Your task to perform on an android device: open app "Expedia: Hotels, Flights & Car" (install if not already installed), go to login, and select forgot password Image 0: 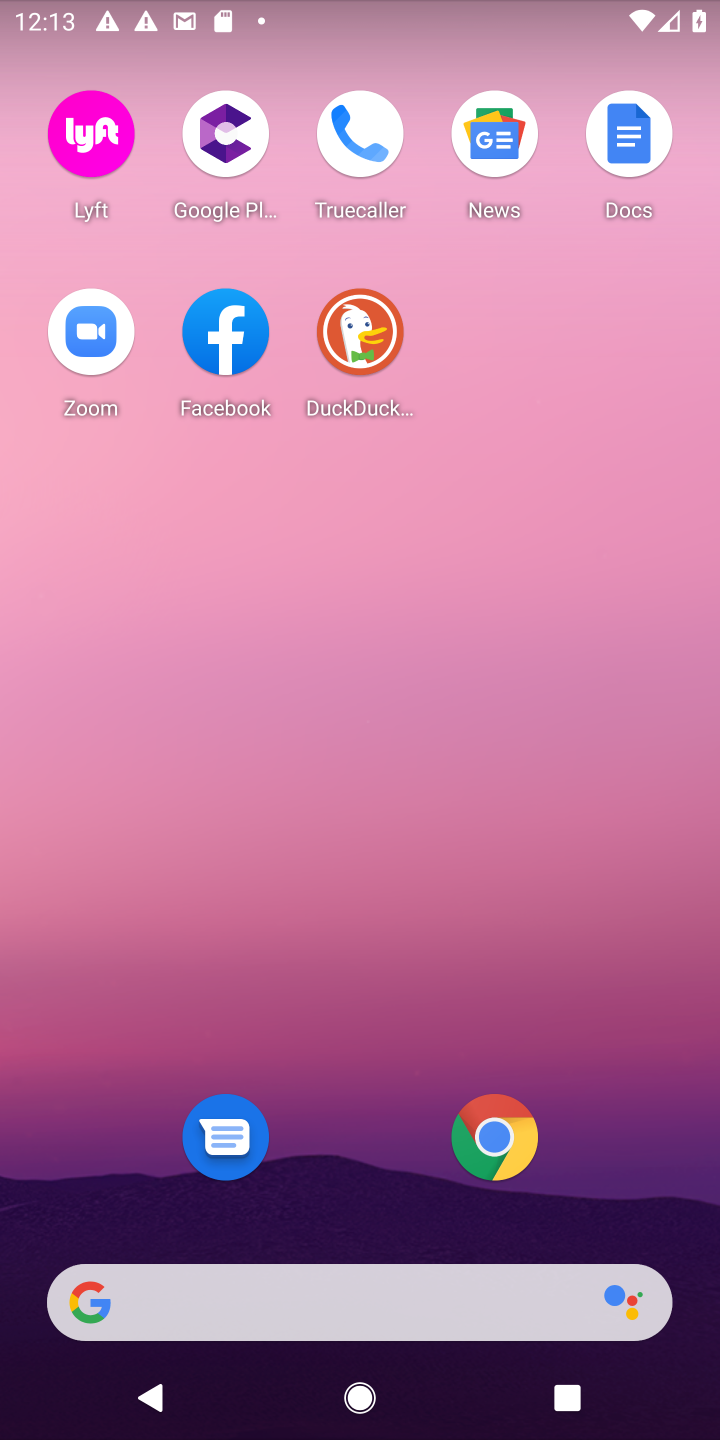
Step 0: drag from (370, 1189) to (174, 280)
Your task to perform on an android device: open app "Expedia: Hotels, Flights & Car" (install if not already installed), go to login, and select forgot password Image 1: 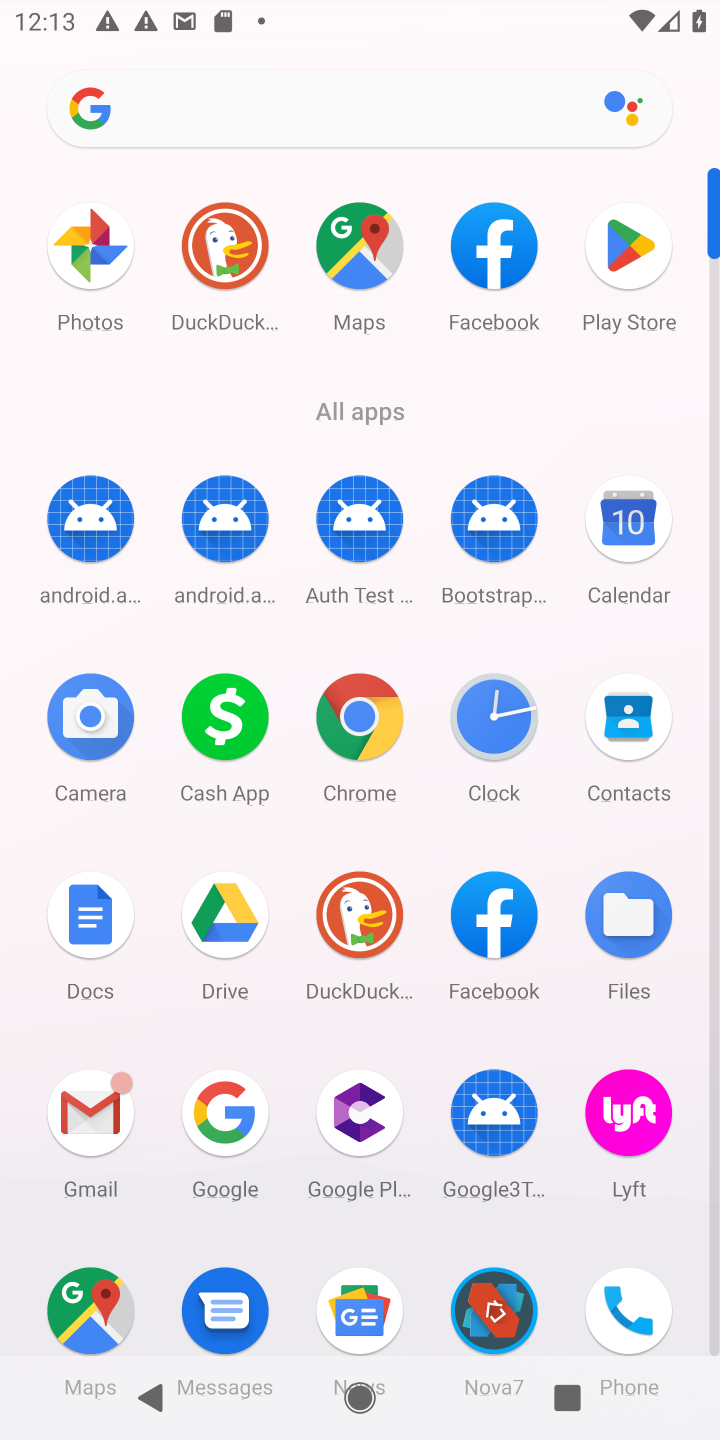
Step 1: click (624, 246)
Your task to perform on an android device: open app "Expedia: Hotels, Flights & Car" (install if not already installed), go to login, and select forgot password Image 2: 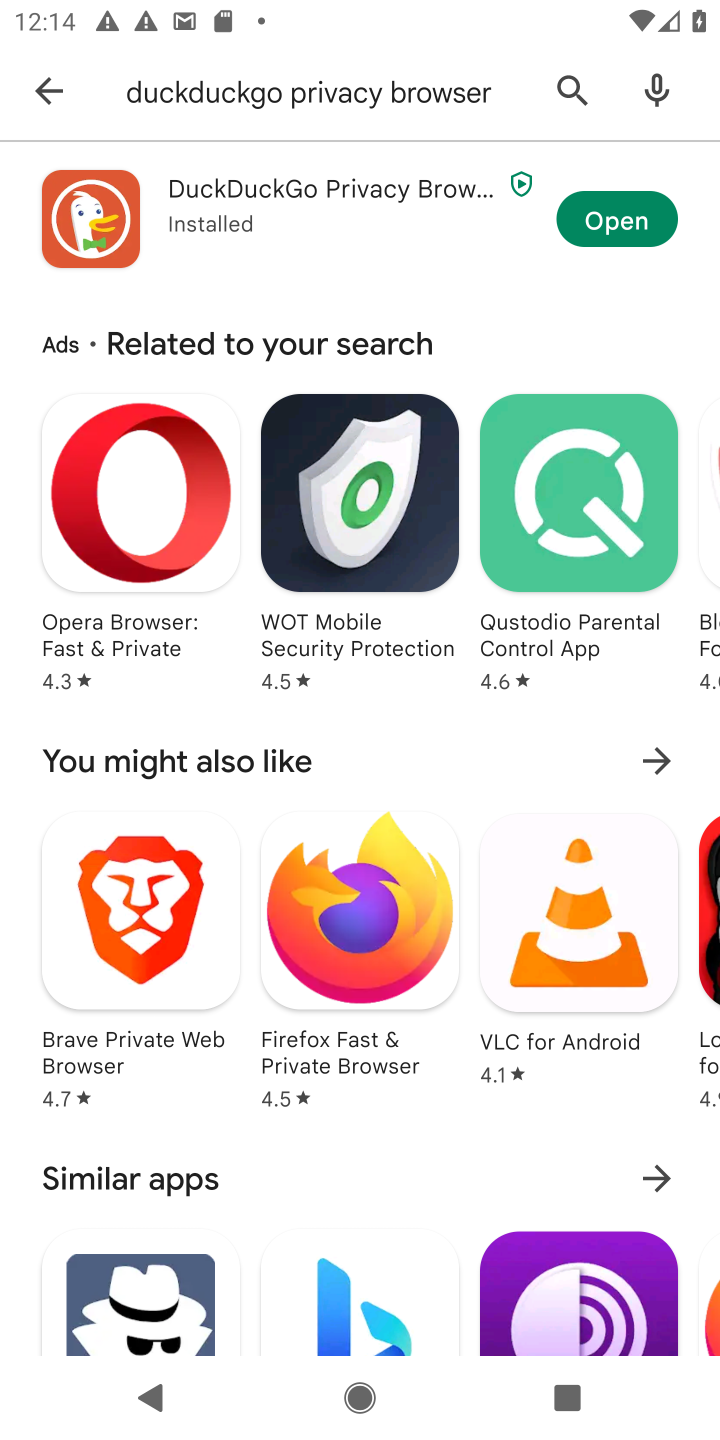
Step 2: click (563, 93)
Your task to perform on an android device: open app "Expedia: Hotels, Flights & Car" (install if not already installed), go to login, and select forgot password Image 3: 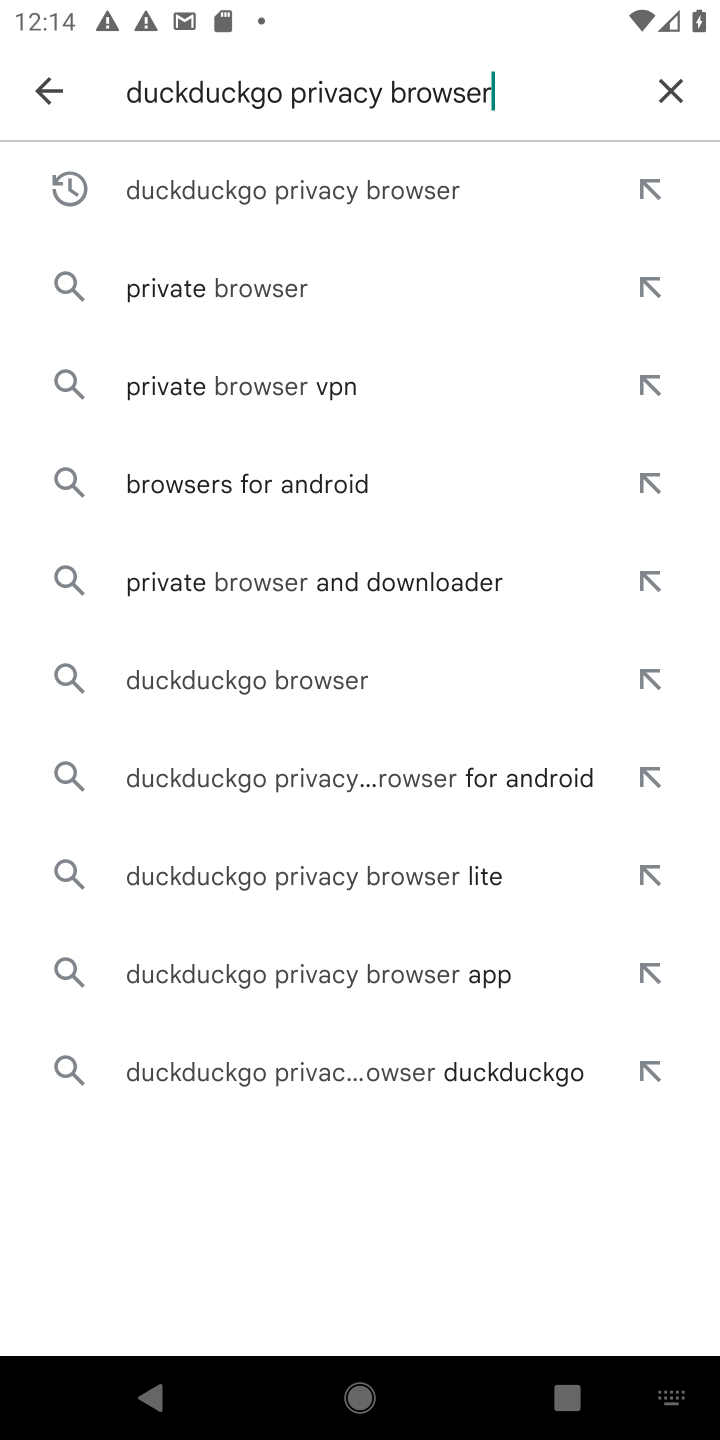
Step 3: click (673, 89)
Your task to perform on an android device: open app "Expedia: Hotels, Flights & Car" (install if not already installed), go to login, and select forgot password Image 4: 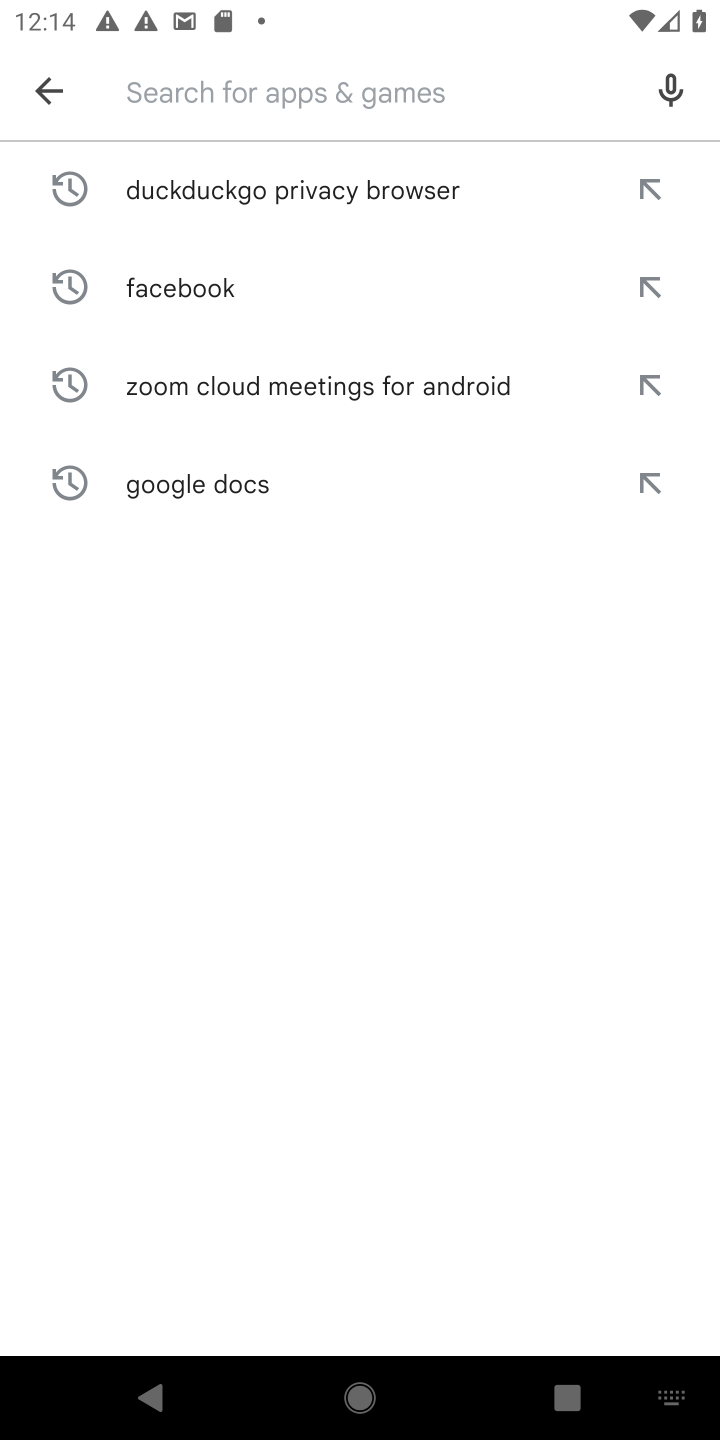
Step 4: type "Expedia: Hotels, Flights & Car"
Your task to perform on an android device: open app "Expedia: Hotels, Flights & Car" (install if not already installed), go to login, and select forgot password Image 5: 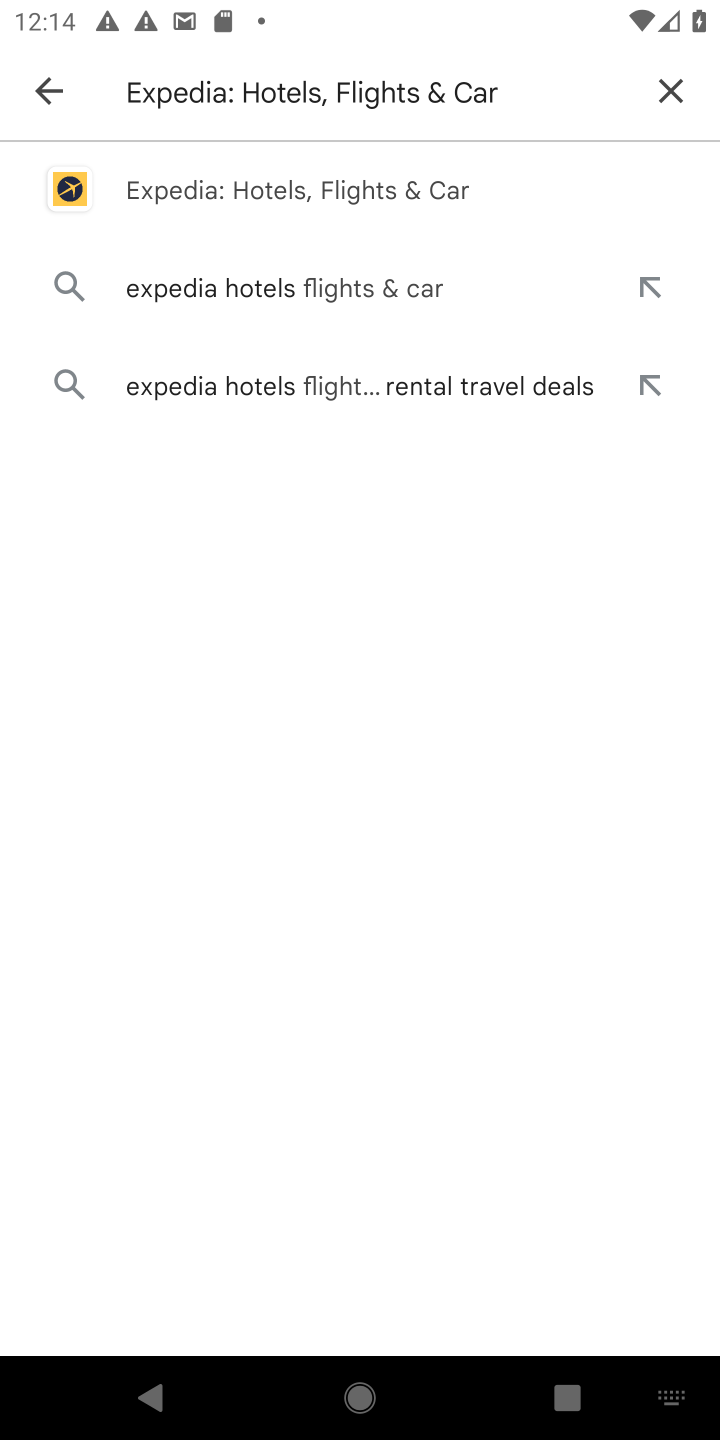
Step 5: click (335, 194)
Your task to perform on an android device: open app "Expedia: Hotels, Flights & Car" (install if not already installed), go to login, and select forgot password Image 6: 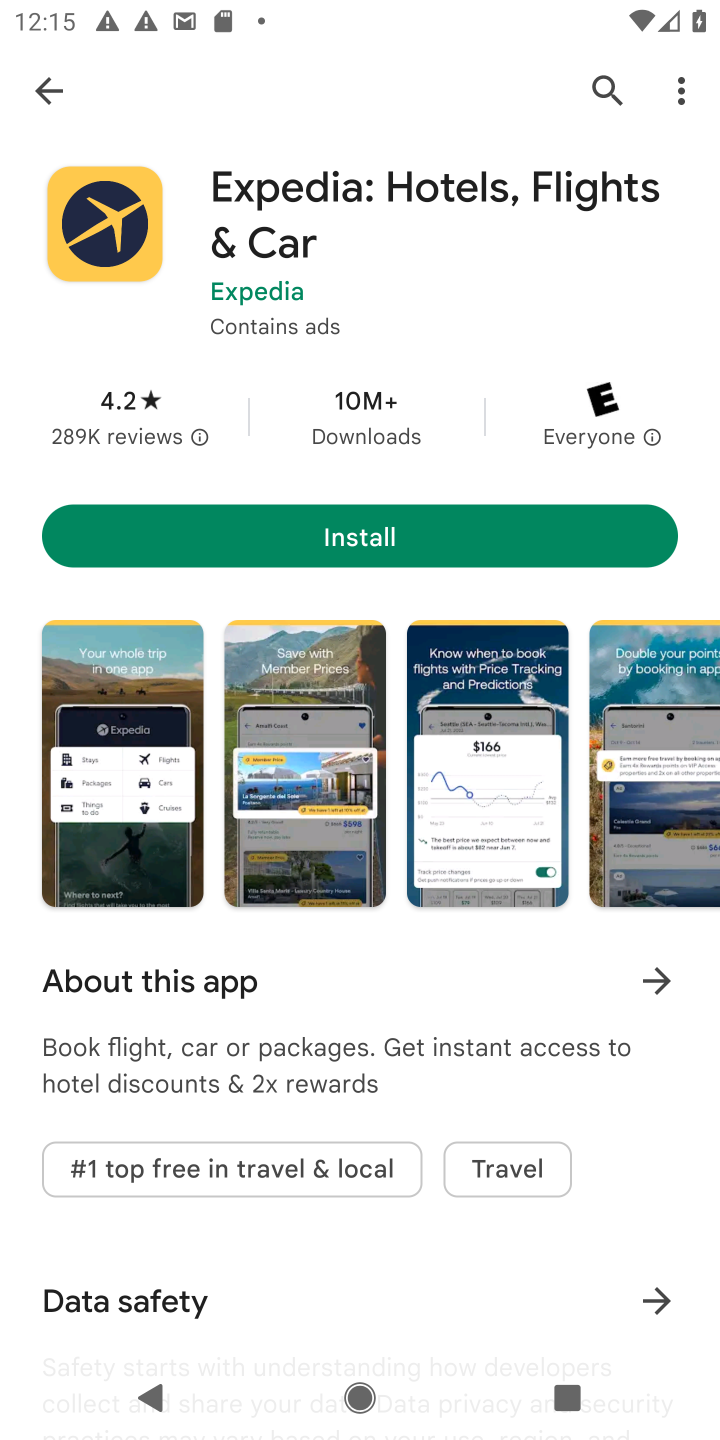
Step 6: click (316, 546)
Your task to perform on an android device: open app "Expedia: Hotels, Flights & Car" (install if not already installed), go to login, and select forgot password Image 7: 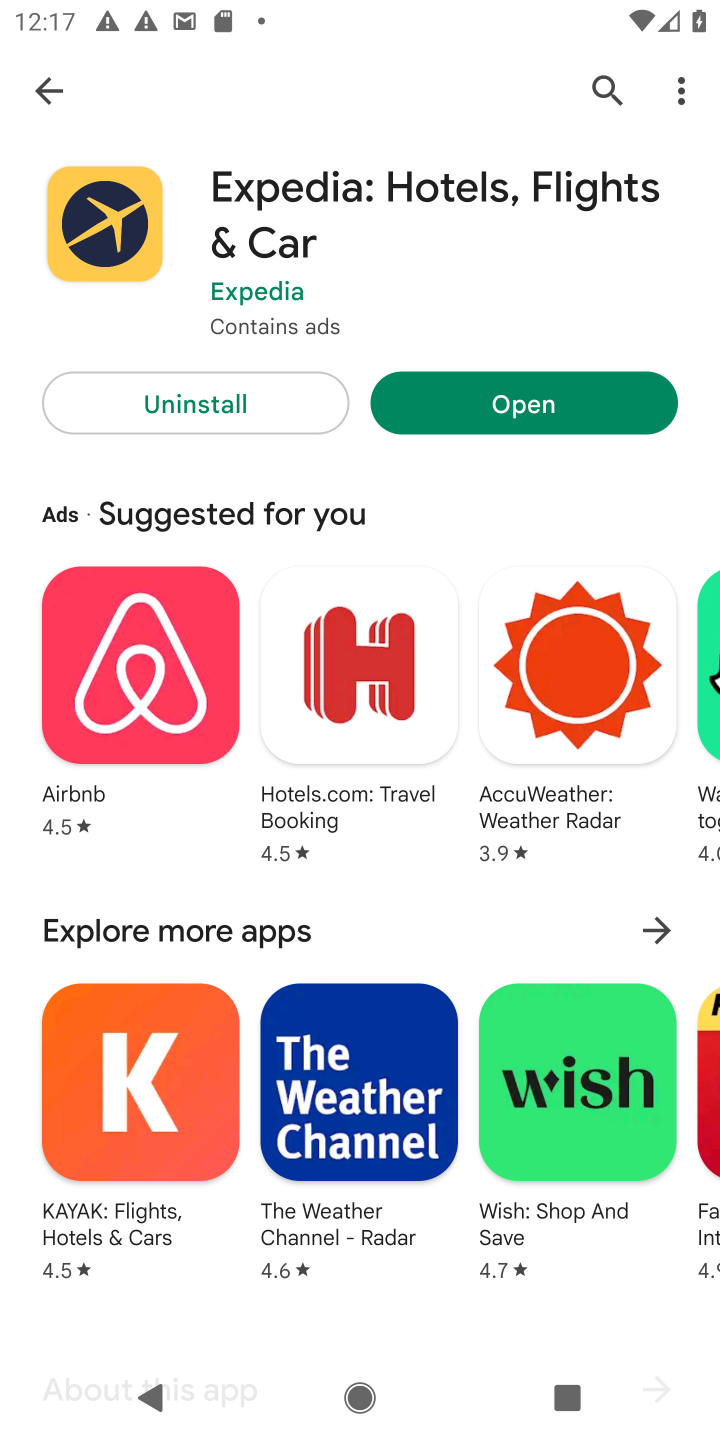
Step 7: click (502, 406)
Your task to perform on an android device: open app "Expedia: Hotels, Flights & Car" (install if not already installed), go to login, and select forgot password Image 8: 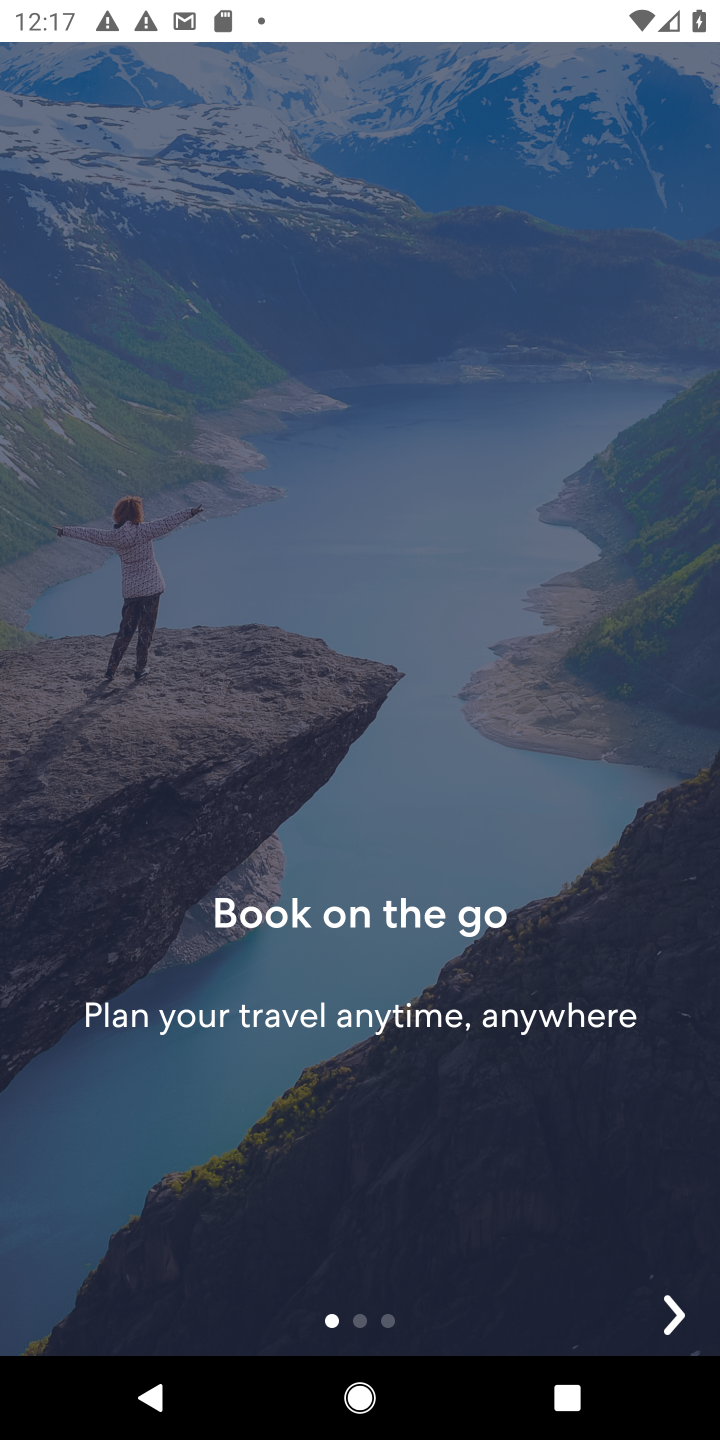
Step 8: click (673, 1318)
Your task to perform on an android device: open app "Expedia: Hotels, Flights & Car" (install if not already installed), go to login, and select forgot password Image 9: 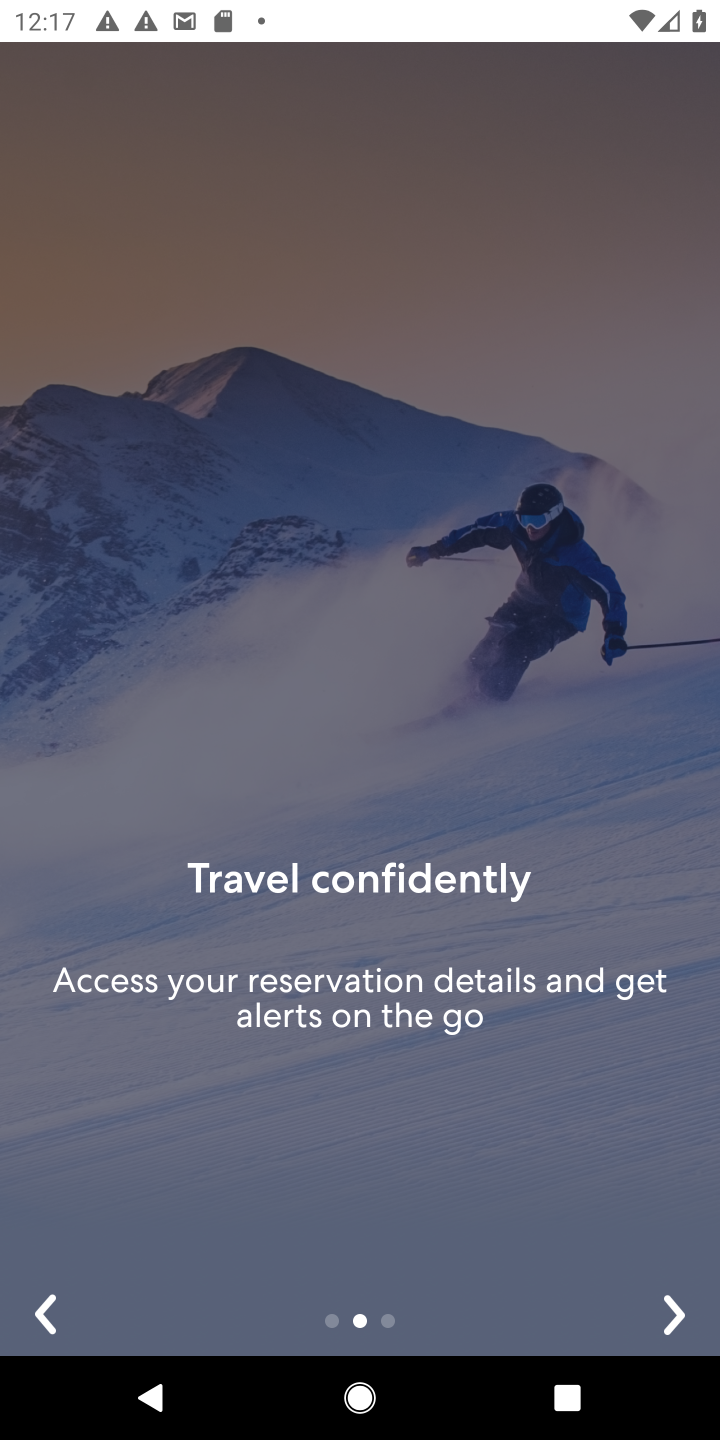
Step 9: click (673, 1318)
Your task to perform on an android device: open app "Expedia: Hotels, Flights & Car" (install if not already installed), go to login, and select forgot password Image 10: 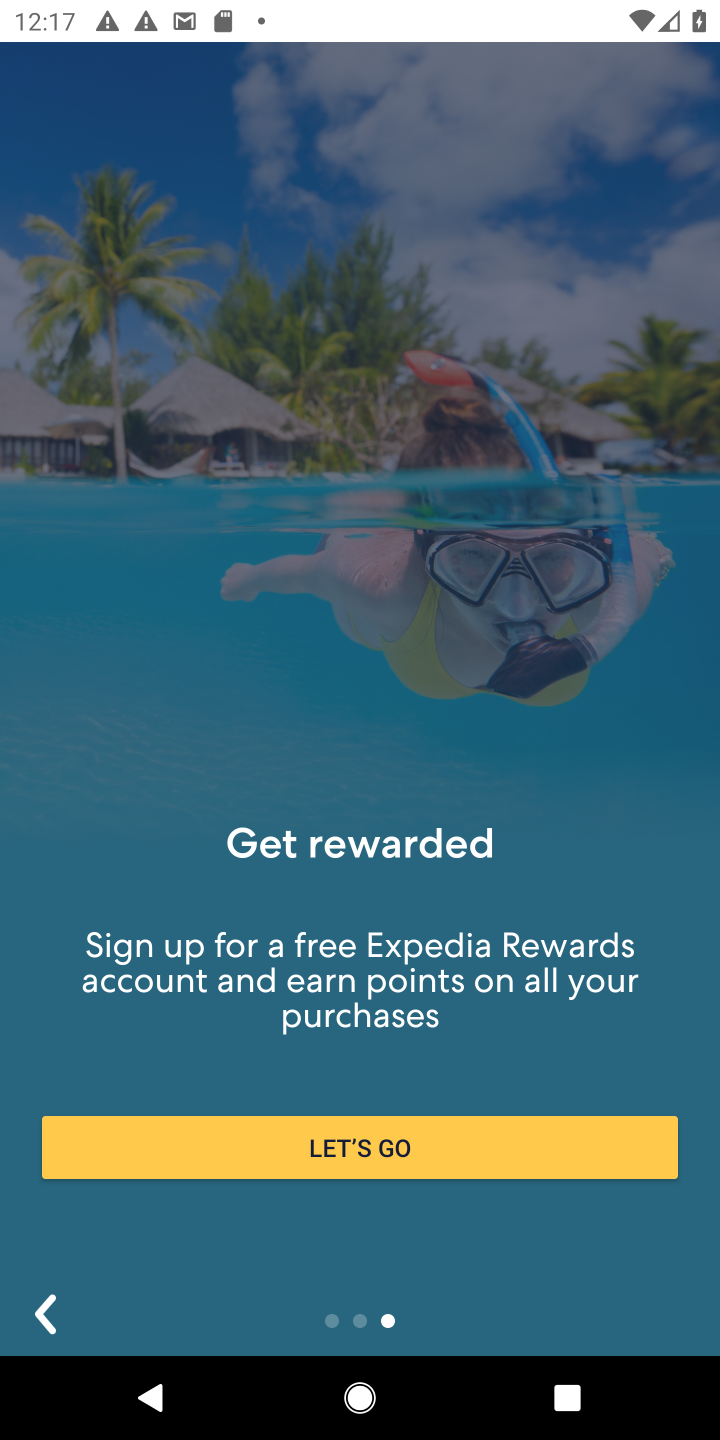
Step 10: click (386, 1144)
Your task to perform on an android device: open app "Expedia: Hotels, Flights & Car" (install if not already installed), go to login, and select forgot password Image 11: 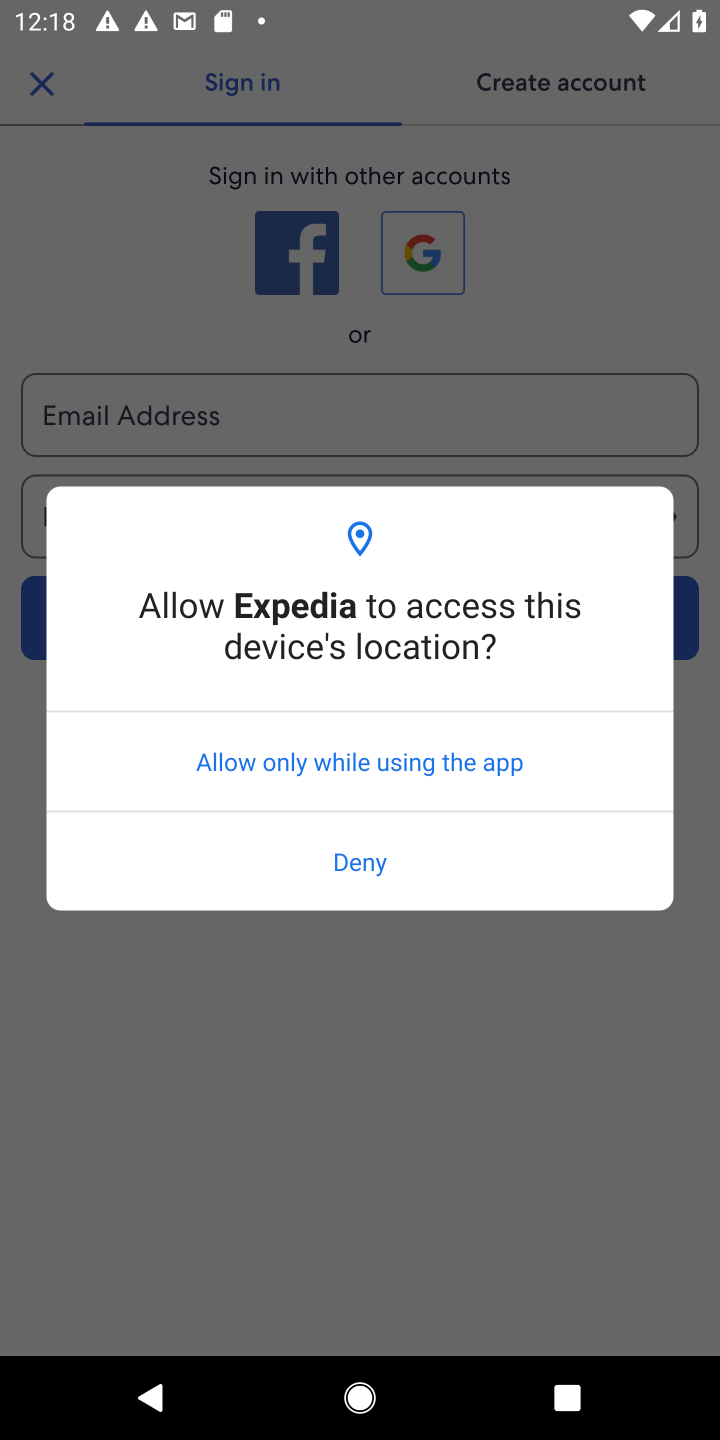
Step 11: click (367, 778)
Your task to perform on an android device: open app "Expedia: Hotels, Flights & Car" (install if not already installed), go to login, and select forgot password Image 12: 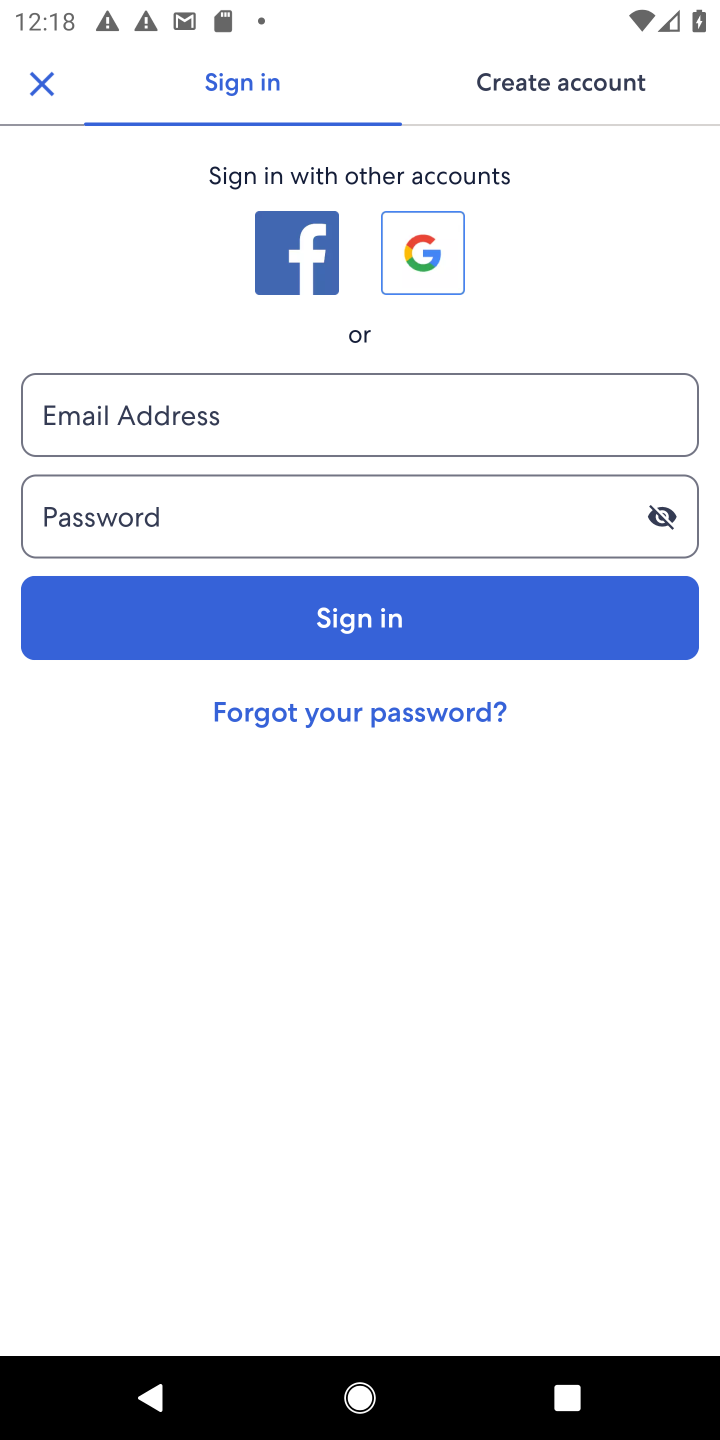
Step 12: click (358, 707)
Your task to perform on an android device: open app "Expedia: Hotels, Flights & Car" (install if not already installed), go to login, and select forgot password Image 13: 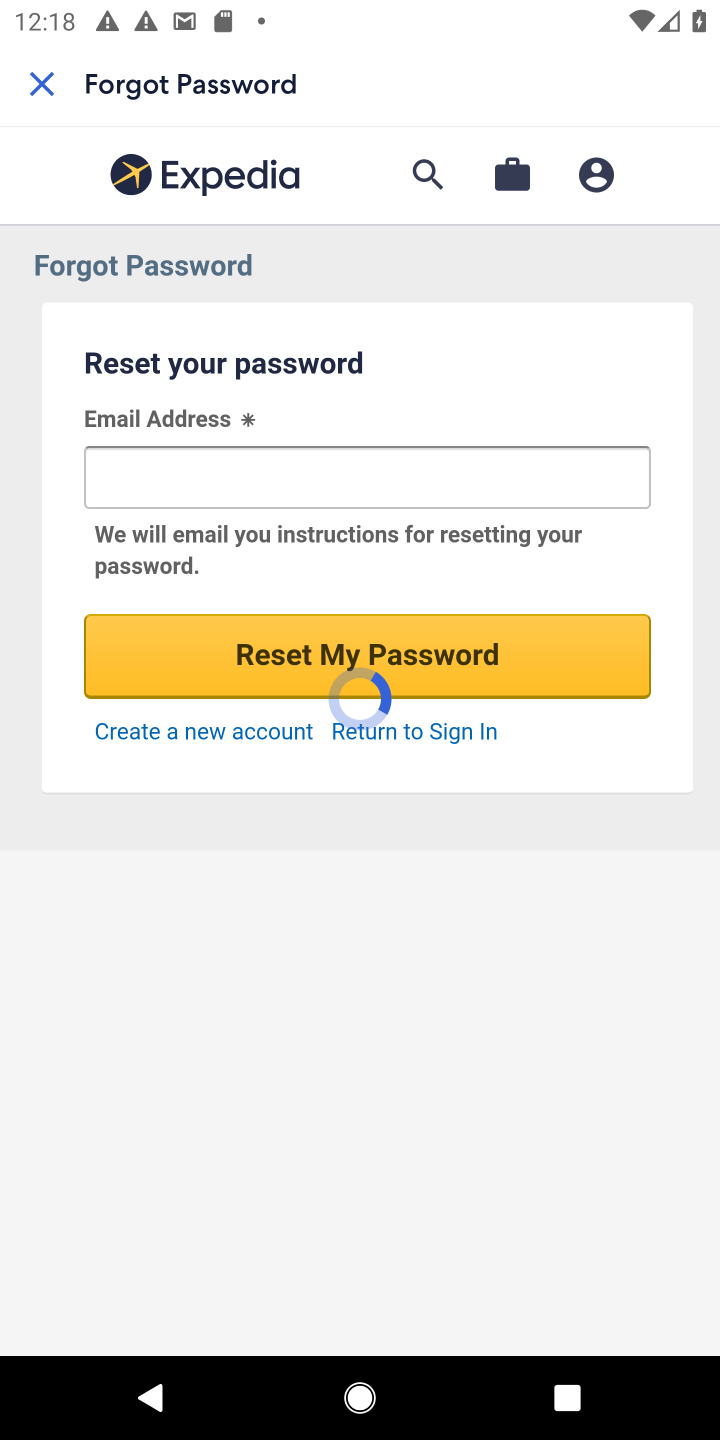
Step 13: task complete